Your task to perform on an android device: Search for seafood restaurants on Google Maps Image 0: 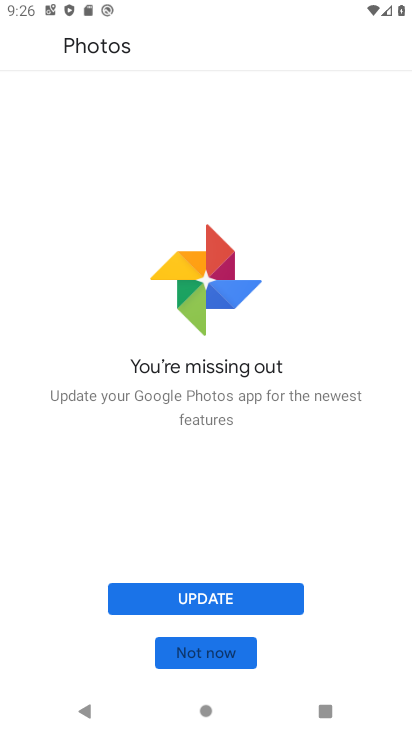
Step 0: press home button
Your task to perform on an android device: Search for seafood restaurants on Google Maps Image 1: 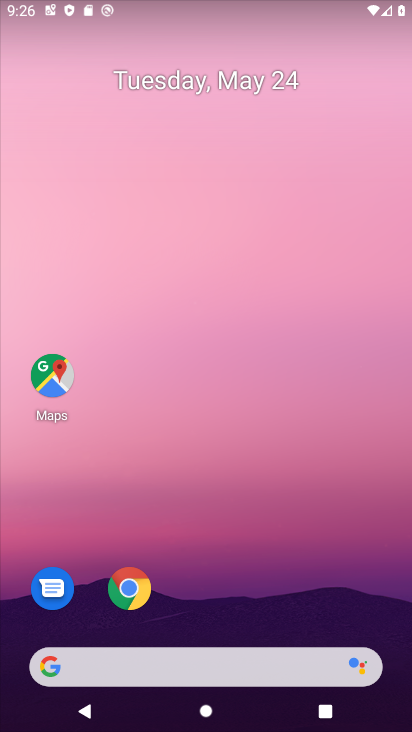
Step 1: click (48, 382)
Your task to perform on an android device: Search for seafood restaurants on Google Maps Image 2: 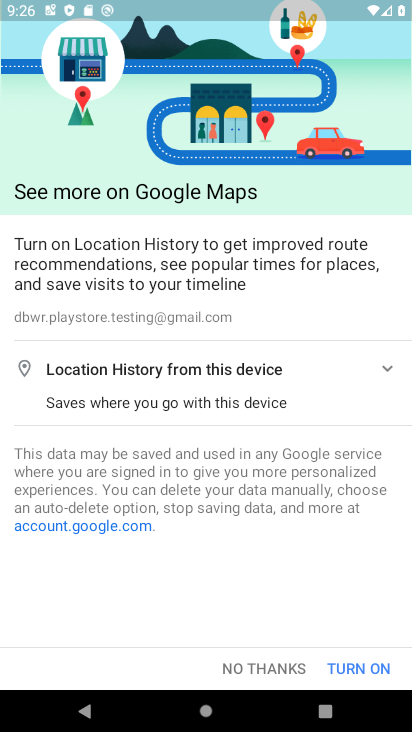
Step 2: press home button
Your task to perform on an android device: Search for seafood restaurants on Google Maps Image 3: 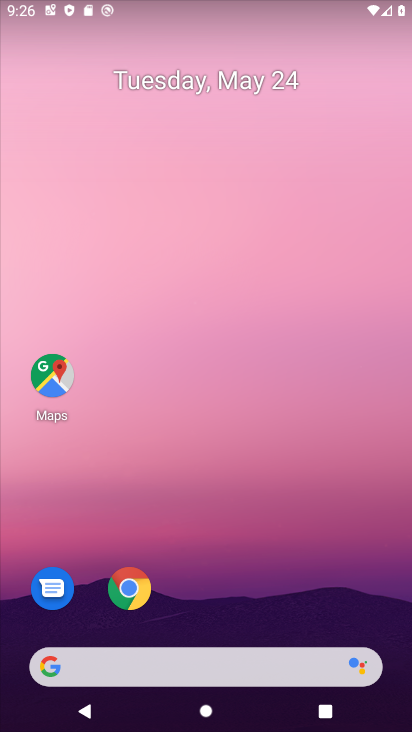
Step 3: click (49, 374)
Your task to perform on an android device: Search for seafood restaurants on Google Maps Image 4: 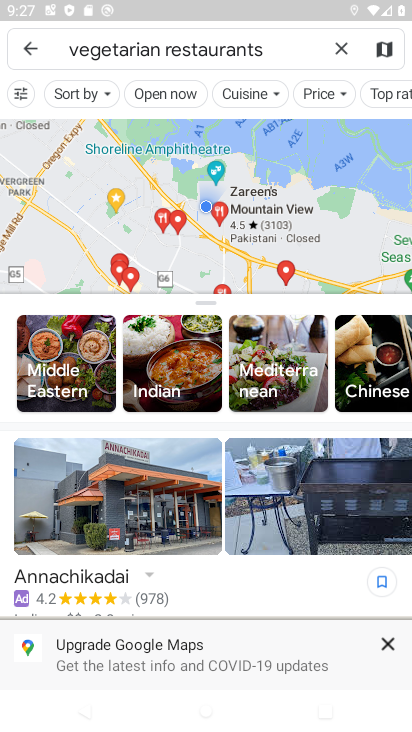
Step 4: click (338, 52)
Your task to perform on an android device: Search for seafood restaurants on Google Maps Image 5: 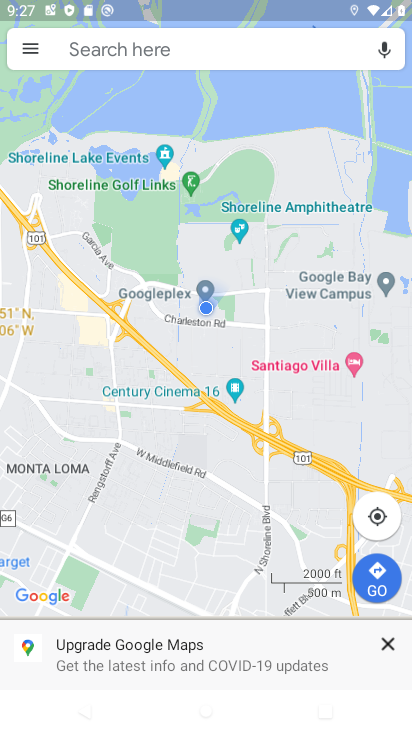
Step 5: click (186, 52)
Your task to perform on an android device: Search for seafood restaurants on Google Maps Image 6: 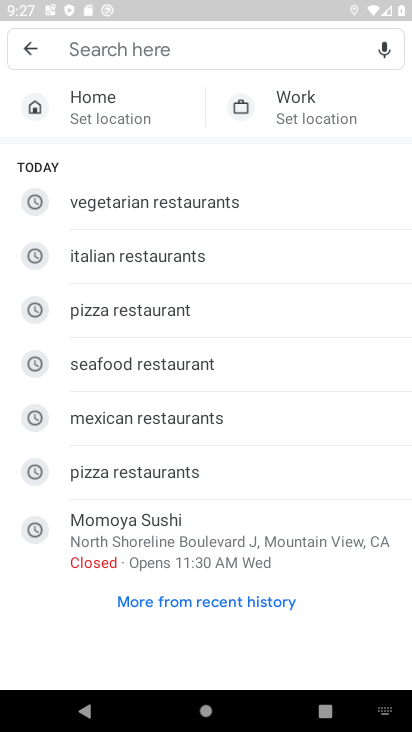
Step 6: click (141, 357)
Your task to perform on an android device: Search for seafood restaurants on Google Maps Image 7: 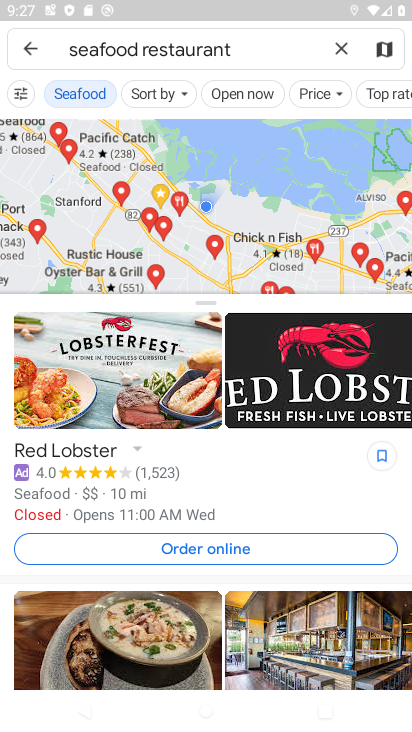
Step 7: task complete